Your task to perform on an android device: Open calendar and show me the second week of next month Image 0: 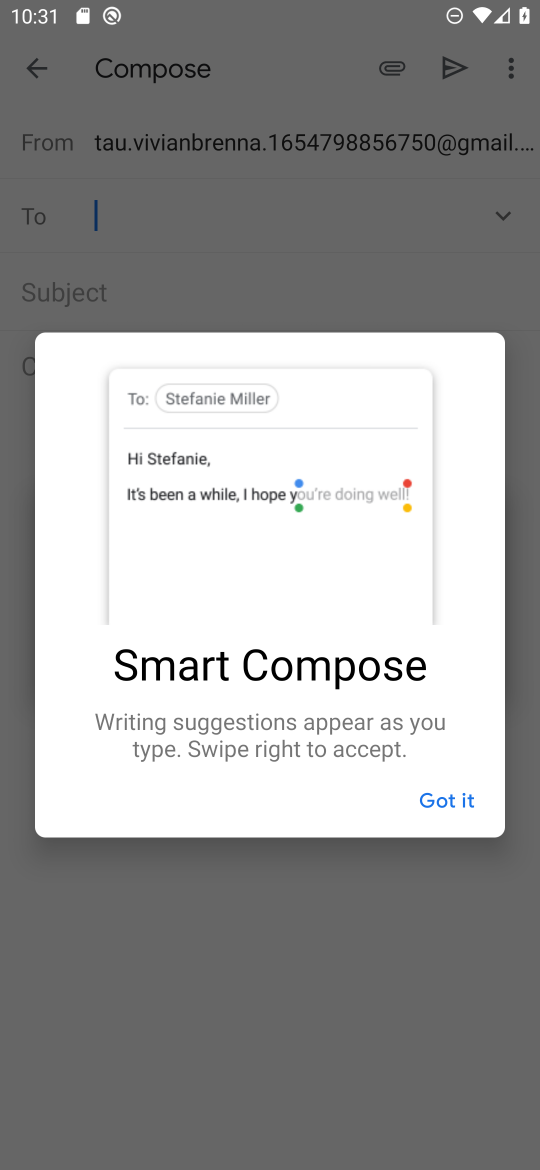
Step 0: press home button
Your task to perform on an android device: Open calendar and show me the second week of next month Image 1: 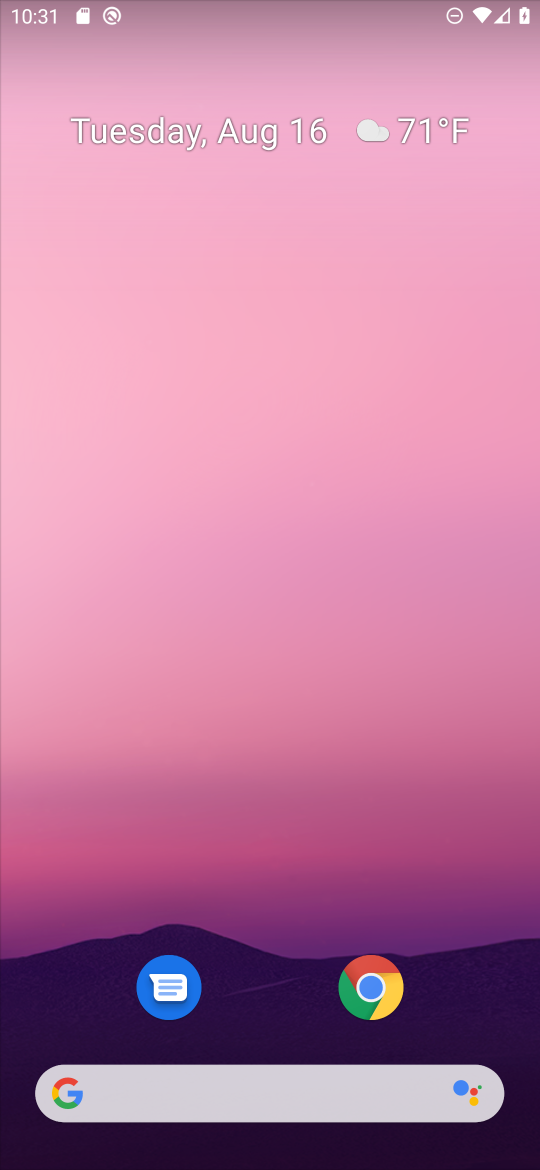
Step 1: drag from (33, 1139) to (250, 675)
Your task to perform on an android device: Open calendar and show me the second week of next month Image 2: 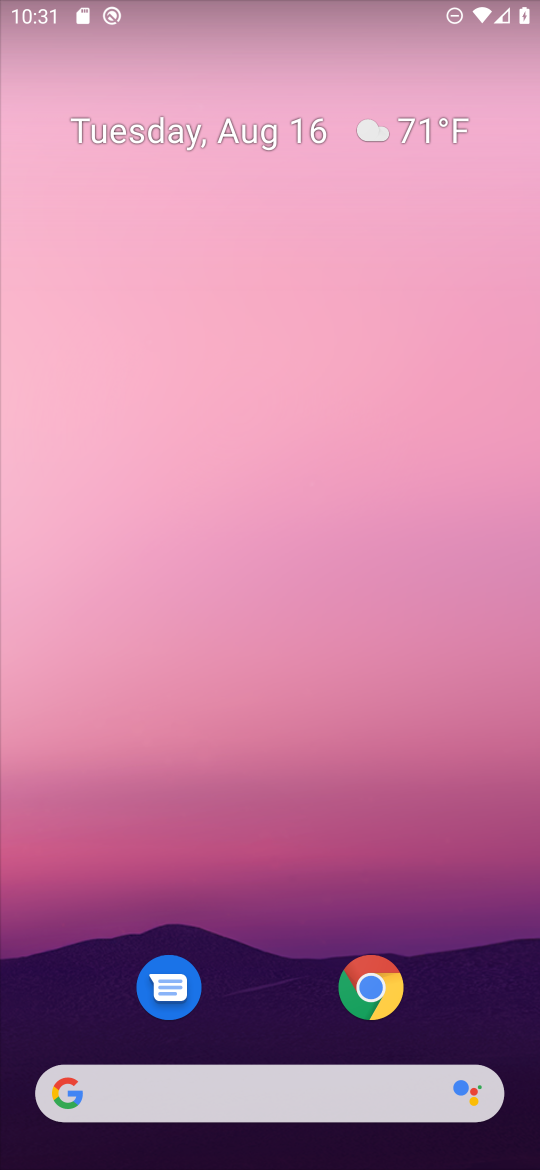
Step 2: drag from (49, 1129) to (317, 511)
Your task to perform on an android device: Open calendar and show me the second week of next month Image 3: 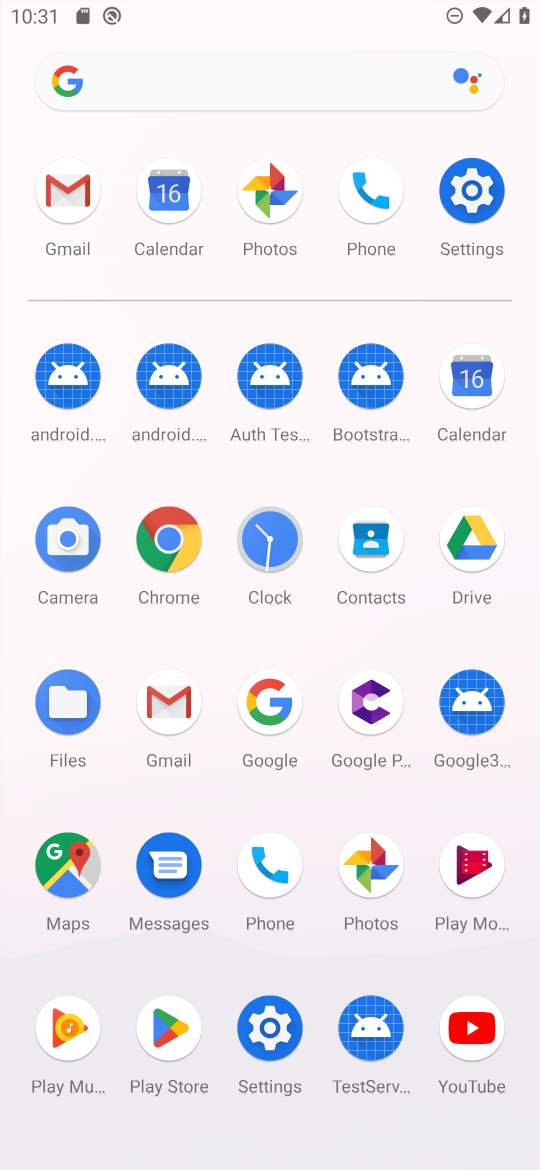
Step 3: click (461, 392)
Your task to perform on an android device: Open calendar and show me the second week of next month Image 4: 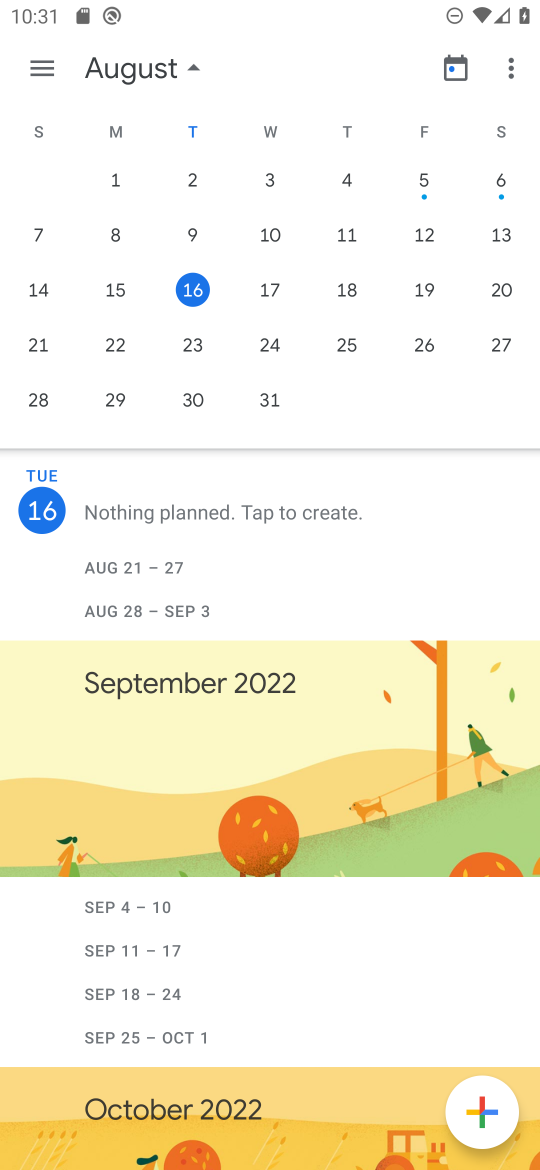
Step 4: drag from (510, 371) to (122, 420)
Your task to perform on an android device: Open calendar and show me the second week of next month Image 5: 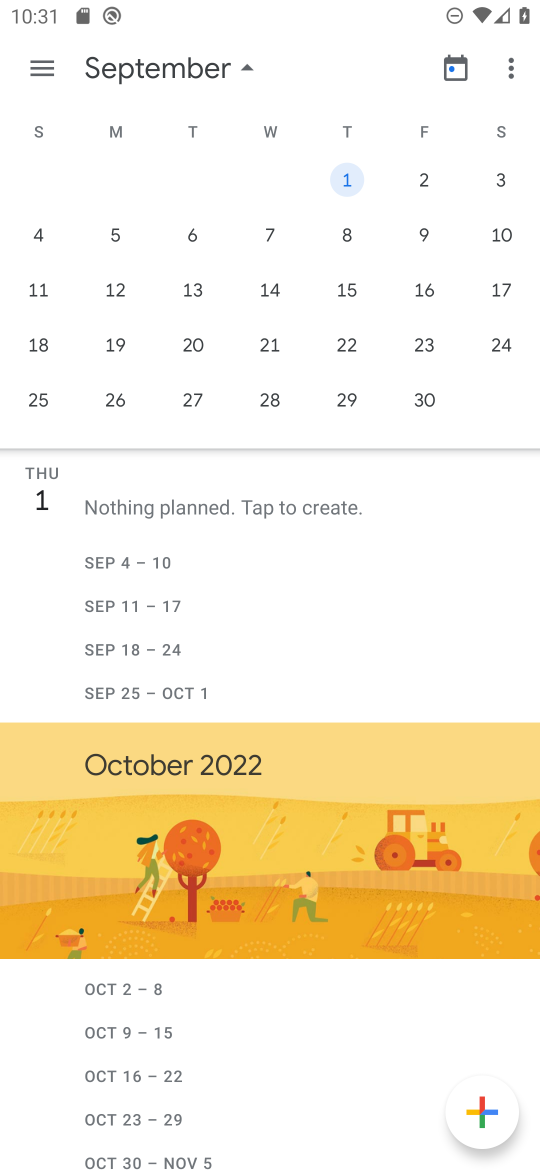
Step 5: click (125, 233)
Your task to perform on an android device: Open calendar and show me the second week of next month Image 6: 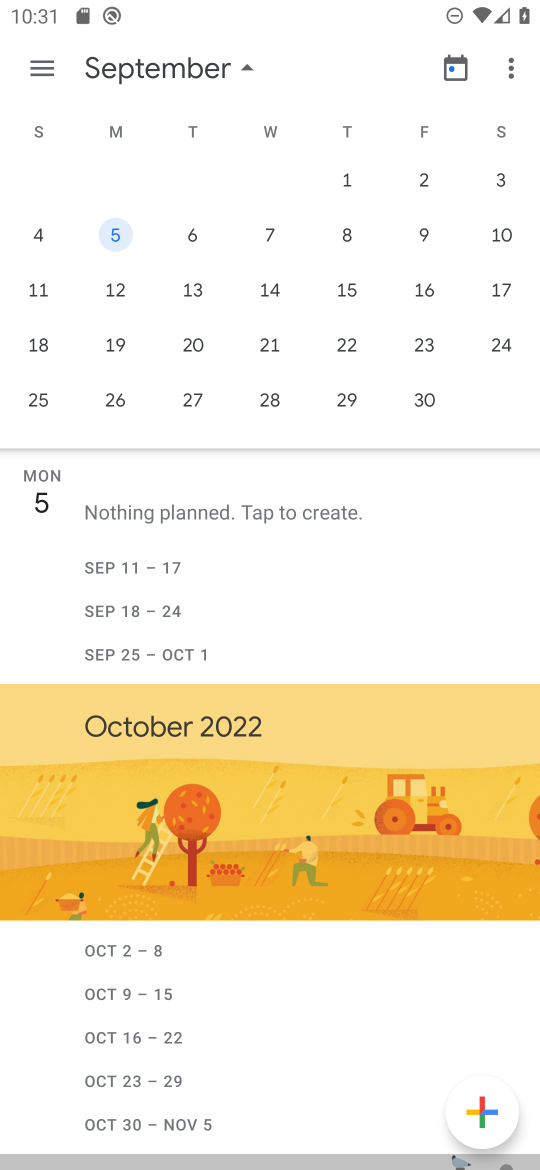
Step 6: task complete